Your task to perform on an android device: turn notification dots on Image 0: 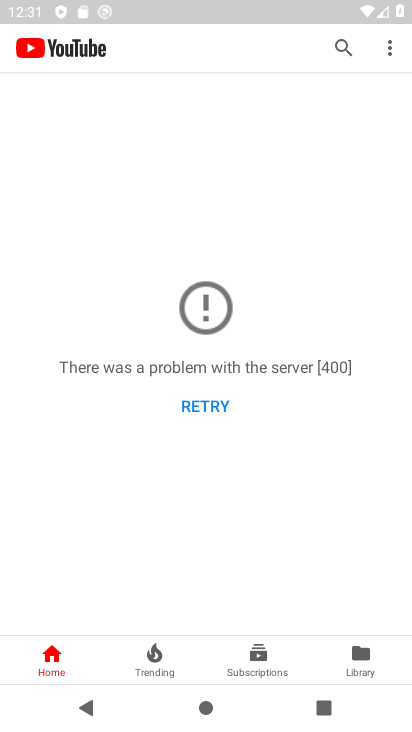
Step 0: press home button
Your task to perform on an android device: turn notification dots on Image 1: 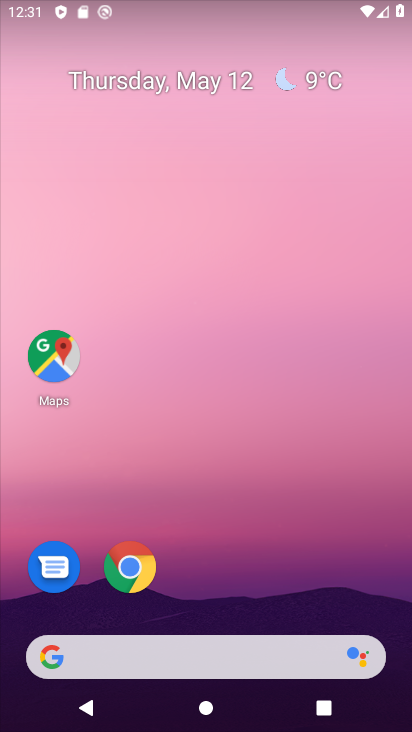
Step 1: drag from (188, 629) to (284, 101)
Your task to perform on an android device: turn notification dots on Image 2: 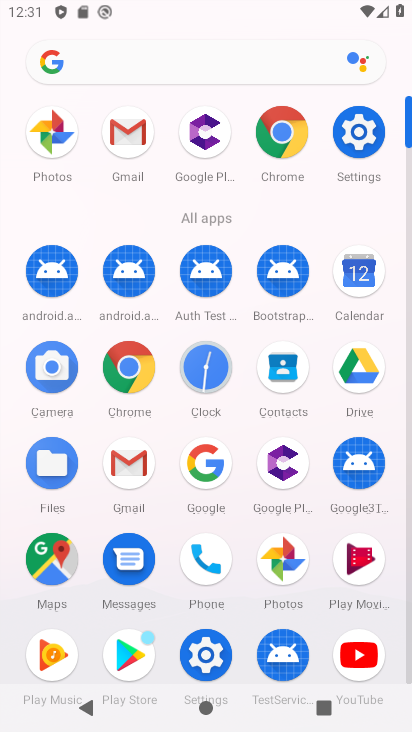
Step 2: click (361, 142)
Your task to perform on an android device: turn notification dots on Image 3: 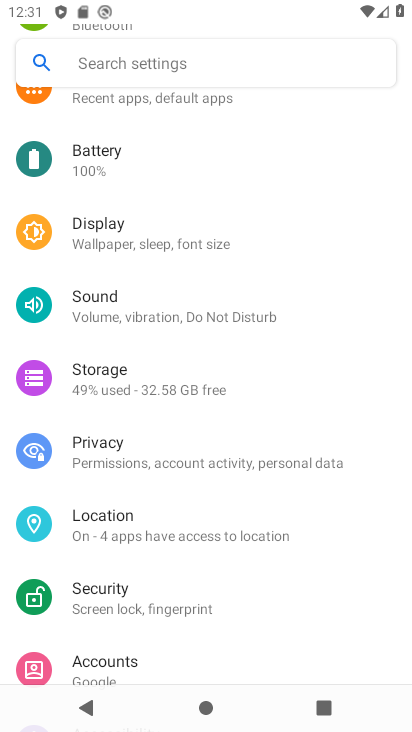
Step 3: drag from (227, 150) to (216, 482)
Your task to perform on an android device: turn notification dots on Image 4: 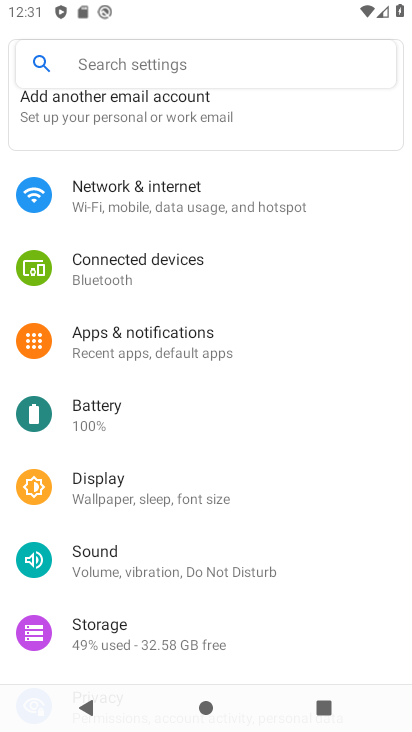
Step 4: click (222, 347)
Your task to perform on an android device: turn notification dots on Image 5: 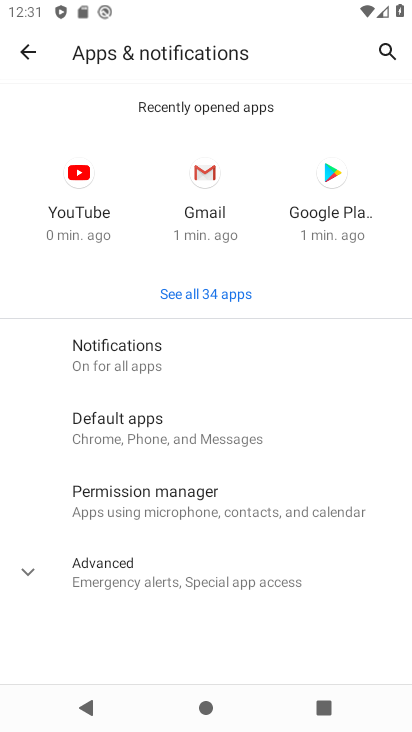
Step 5: click (245, 361)
Your task to perform on an android device: turn notification dots on Image 6: 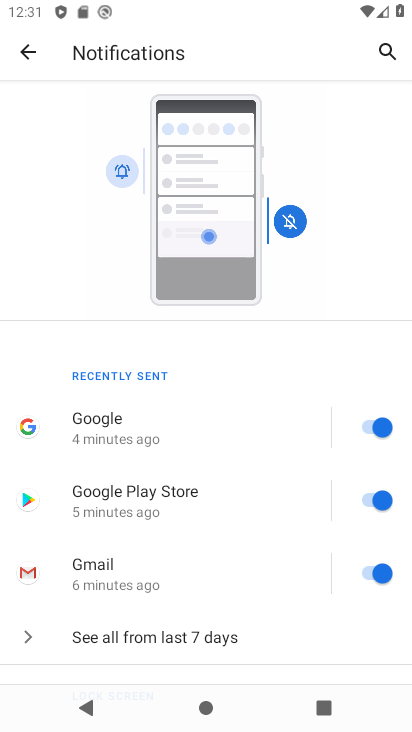
Step 6: drag from (181, 685) to (295, 157)
Your task to perform on an android device: turn notification dots on Image 7: 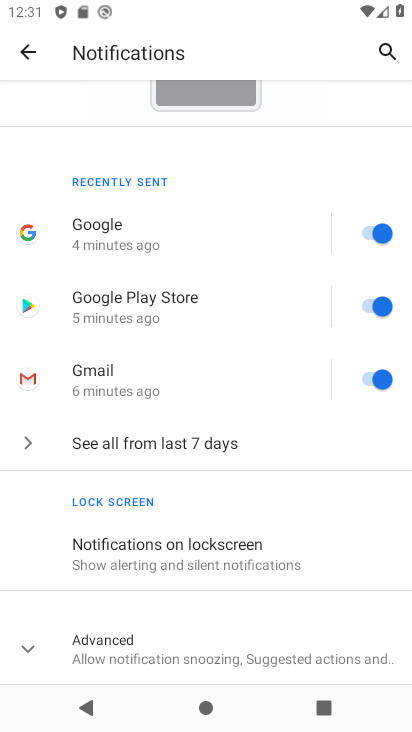
Step 7: click (189, 658)
Your task to perform on an android device: turn notification dots on Image 8: 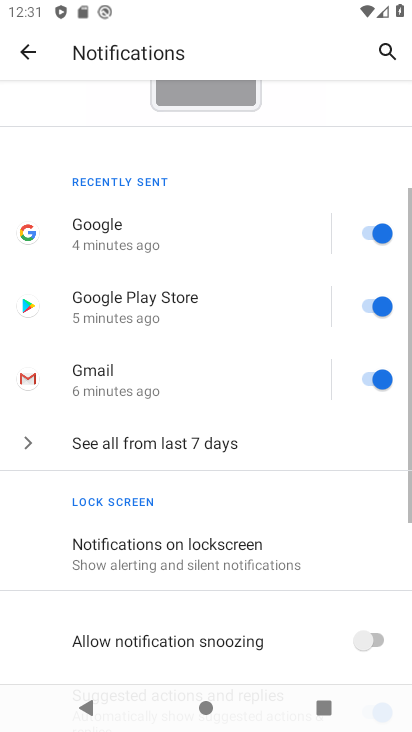
Step 8: task complete